Your task to perform on an android device: uninstall "Microsoft Outlook" Image 0: 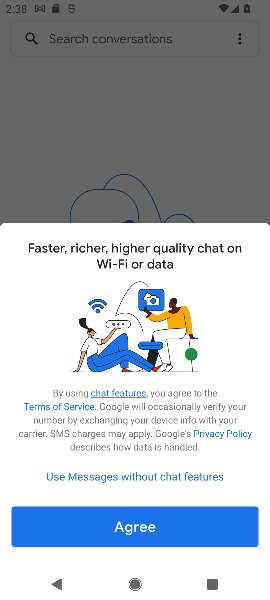
Step 0: press home button
Your task to perform on an android device: uninstall "Microsoft Outlook" Image 1: 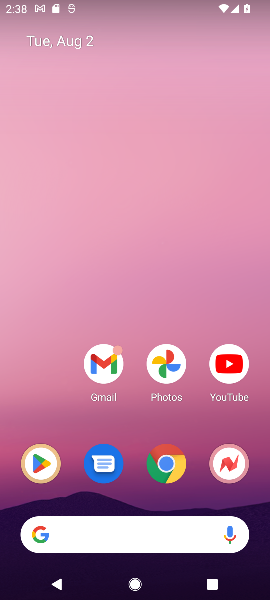
Step 1: click (35, 458)
Your task to perform on an android device: uninstall "Microsoft Outlook" Image 2: 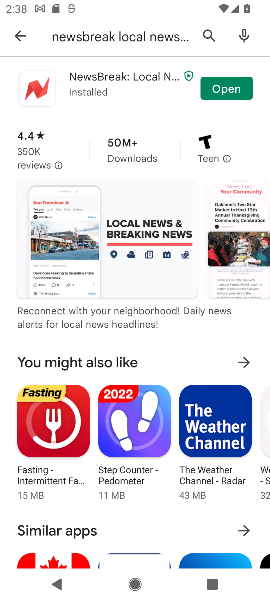
Step 2: click (206, 27)
Your task to perform on an android device: uninstall "Microsoft Outlook" Image 3: 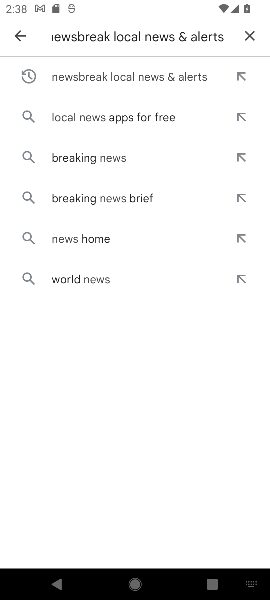
Step 3: click (251, 26)
Your task to perform on an android device: uninstall "Microsoft Outlook" Image 4: 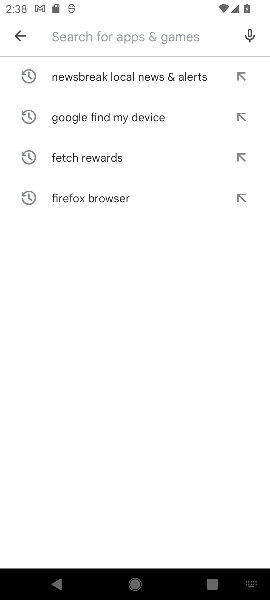
Step 4: type "Microsoft Outlook"
Your task to perform on an android device: uninstall "Microsoft Outlook" Image 5: 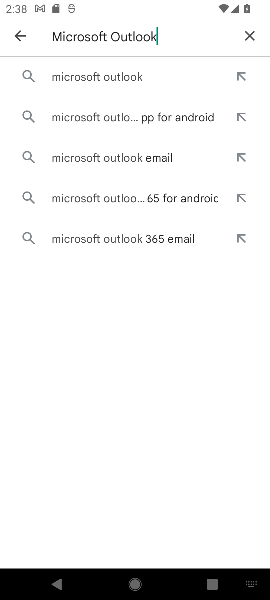
Step 5: click (137, 75)
Your task to perform on an android device: uninstall "Microsoft Outlook" Image 6: 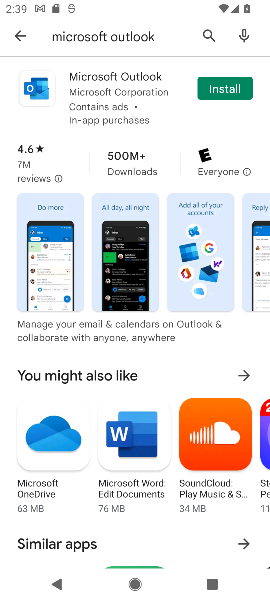
Step 6: task complete